Your task to perform on an android device: move an email to a new category in the gmail app Image 0: 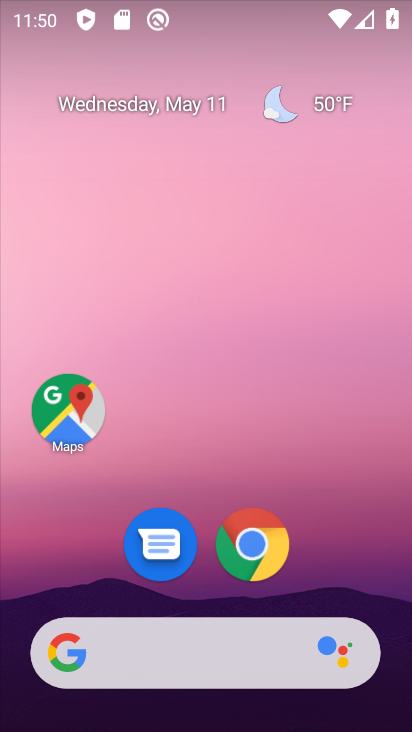
Step 0: drag from (198, 623) to (189, 70)
Your task to perform on an android device: move an email to a new category in the gmail app Image 1: 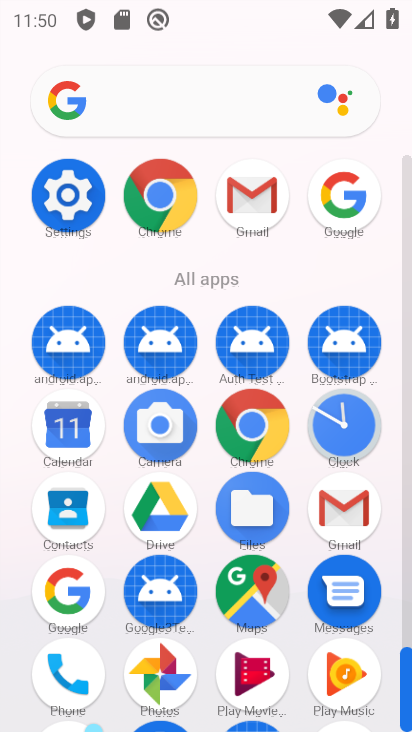
Step 1: click (349, 520)
Your task to perform on an android device: move an email to a new category in the gmail app Image 2: 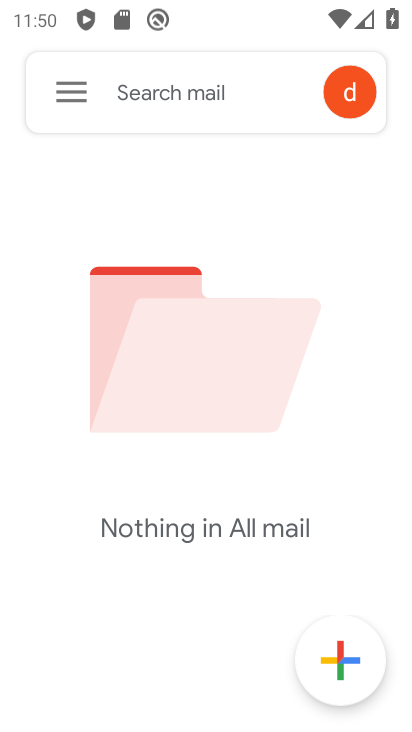
Step 2: click (82, 104)
Your task to perform on an android device: move an email to a new category in the gmail app Image 3: 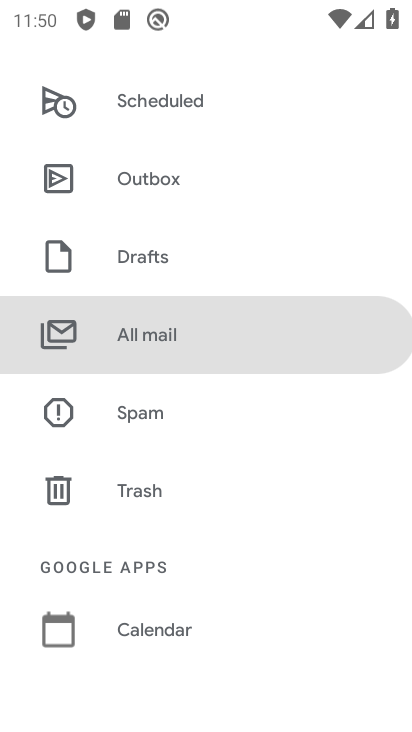
Step 3: click (167, 336)
Your task to perform on an android device: move an email to a new category in the gmail app Image 4: 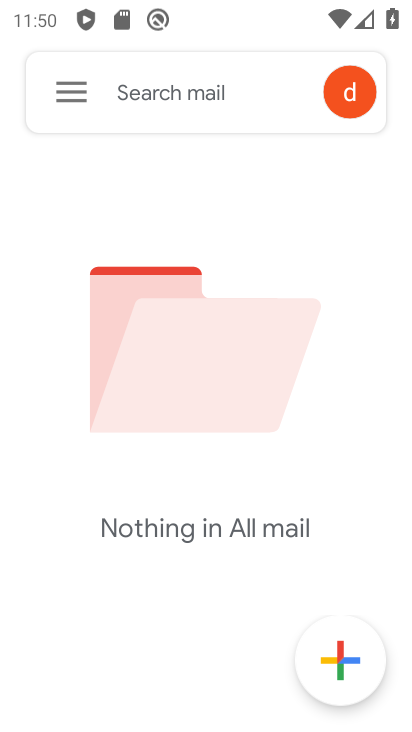
Step 4: task complete